Your task to perform on an android device: Open settings Image 0: 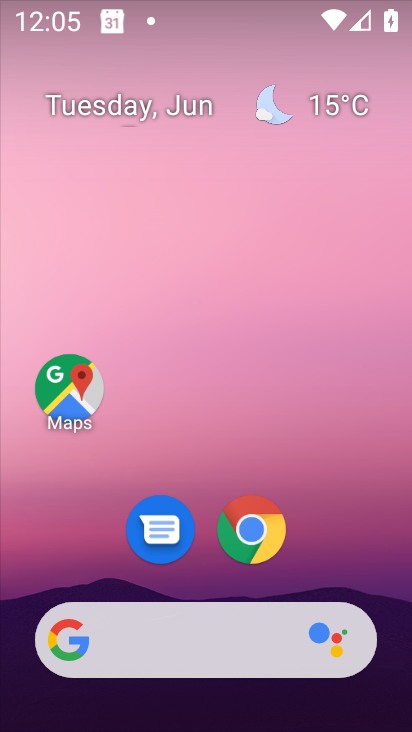
Step 0: drag from (88, 582) to (225, 79)
Your task to perform on an android device: Open settings Image 1: 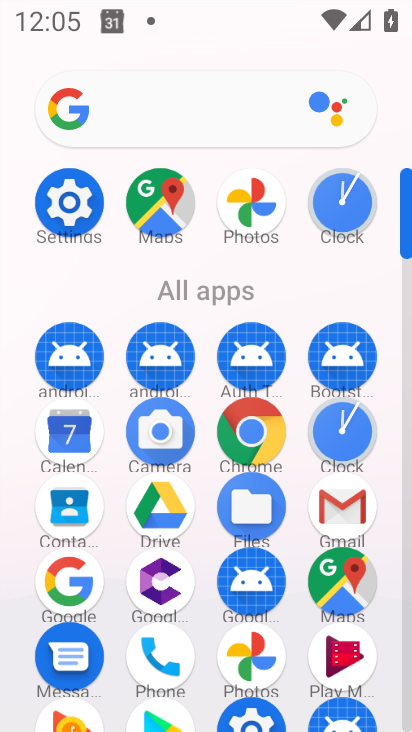
Step 1: drag from (145, 674) to (242, 261)
Your task to perform on an android device: Open settings Image 2: 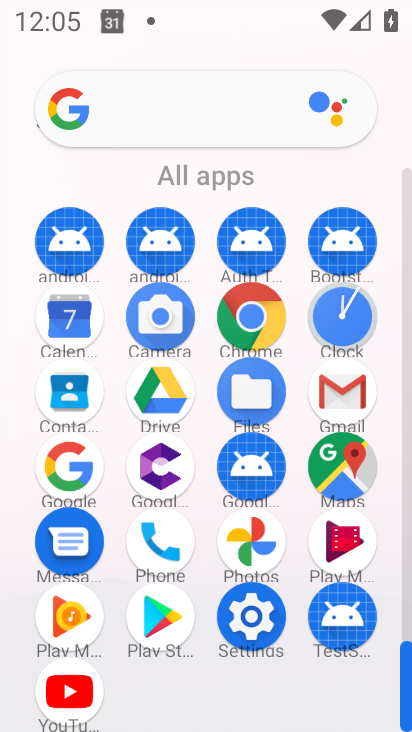
Step 2: click (271, 614)
Your task to perform on an android device: Open settings Image 3: 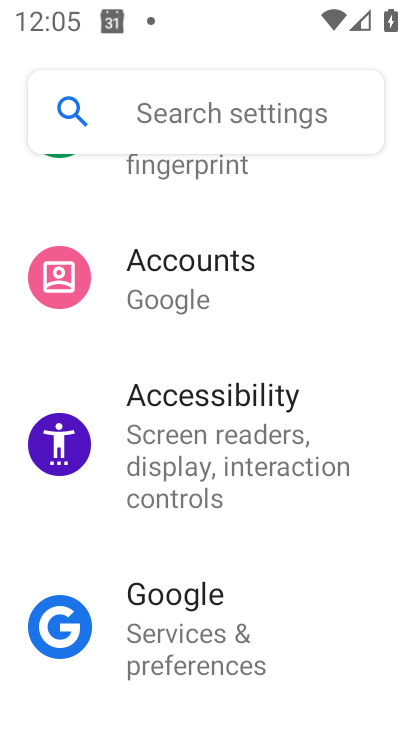
Step 3: task complete